Your task to perform on an android device: Go to network settings Image 0: 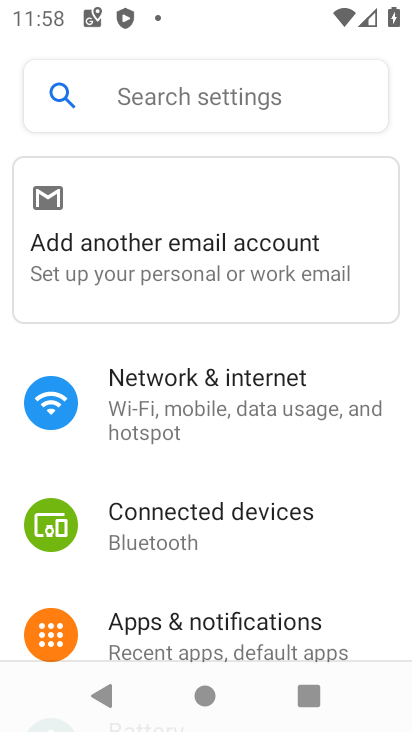
Step 0: click (175, 408)
Your task to perform on an android device: Go to network settings Image 1: 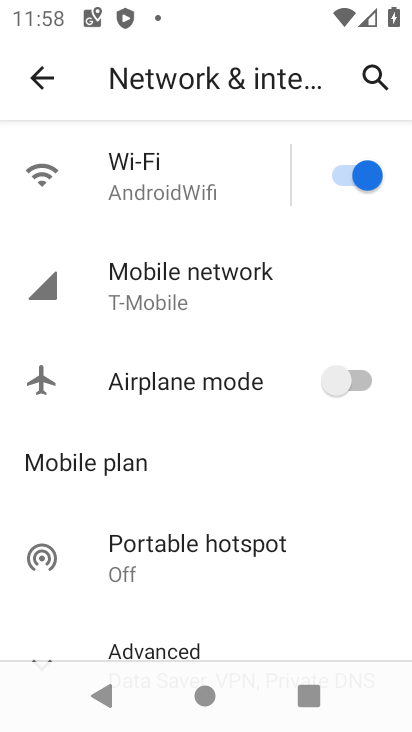
Step 1: task complete